Your task to perform on an android device: What's the news in South Korea? Image 0: 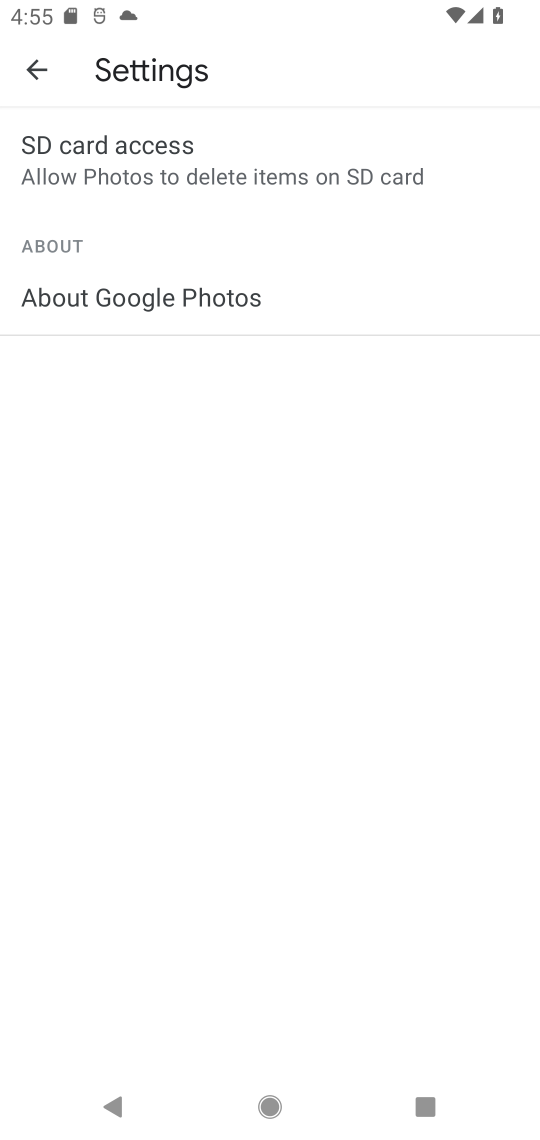
Step 0: press home button
Your task to perform on an android device: What's the news in South Korea? Image 1: 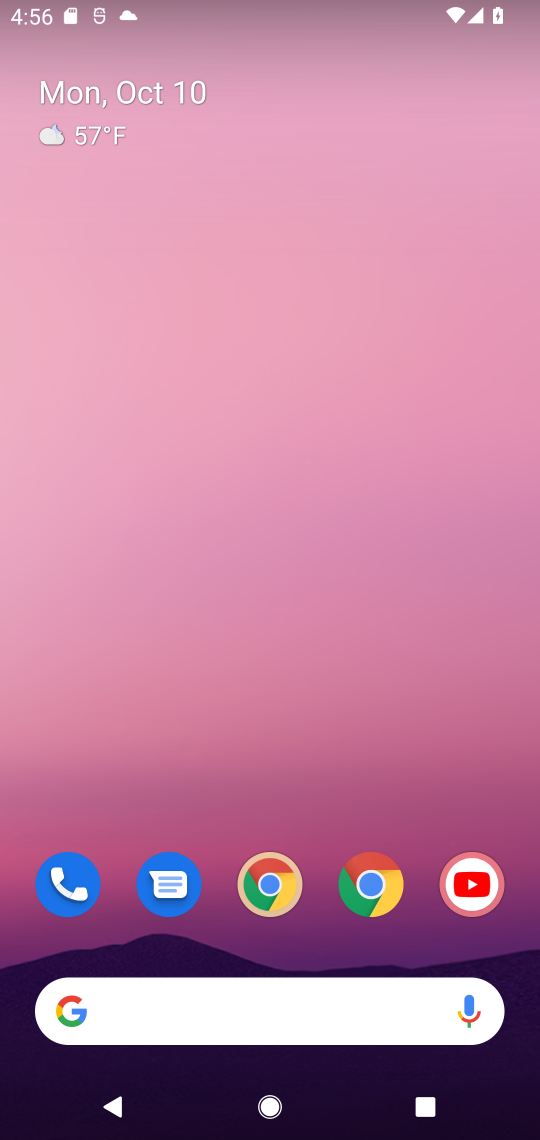
Step 1: click (381, 1016)
Your task to perform on an android device: What's the news in South Korea? Image 2: 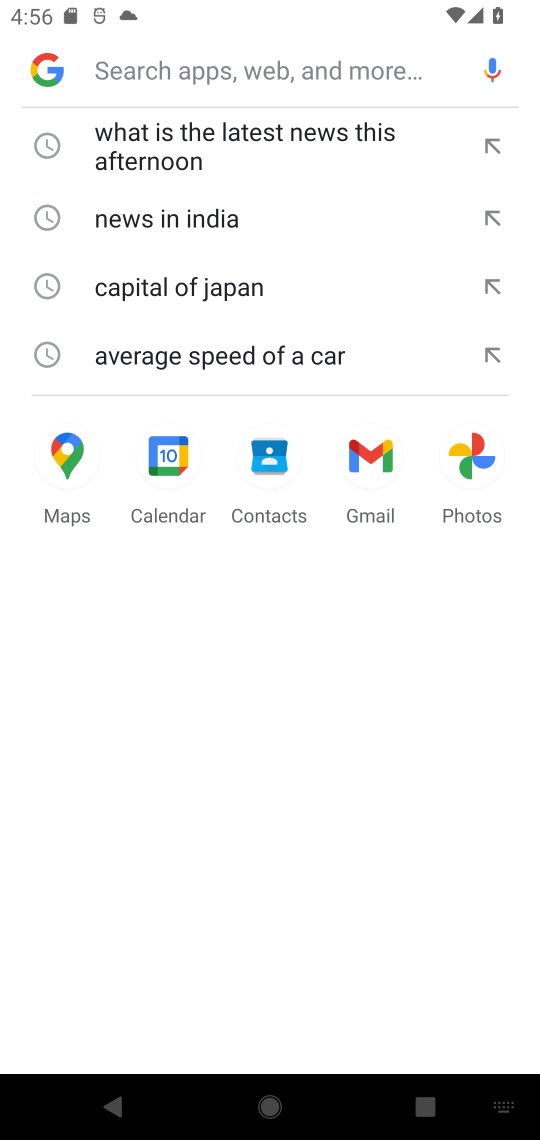
Step 2: type "news in south korea"
Your task to perform on an android device: What's the news in South Korea? Image 3: 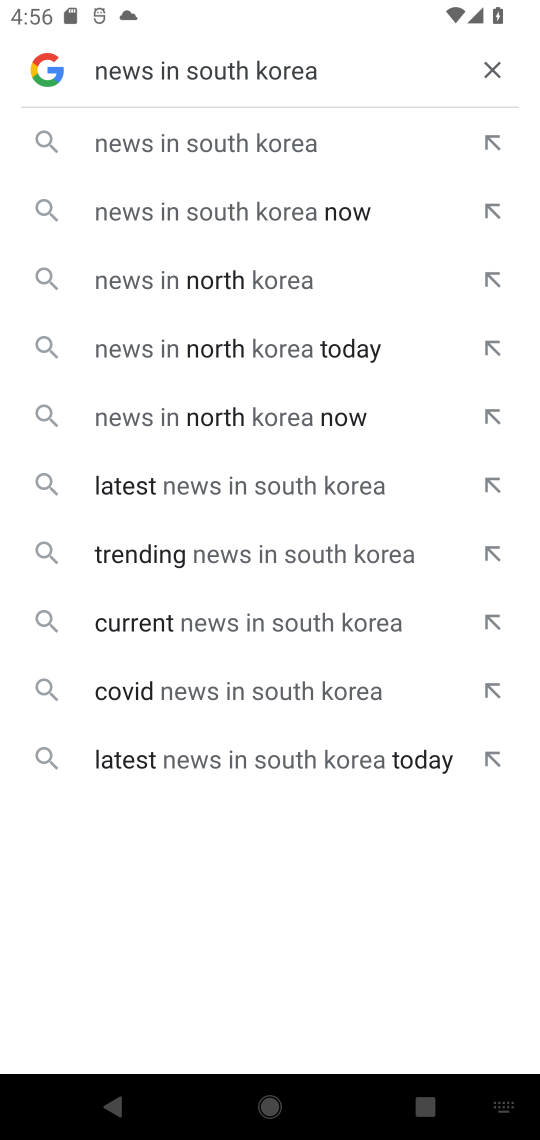
Step 3: click (247, 156)
Your task to perform on an android device: What's the news in South Korea? Image 4: 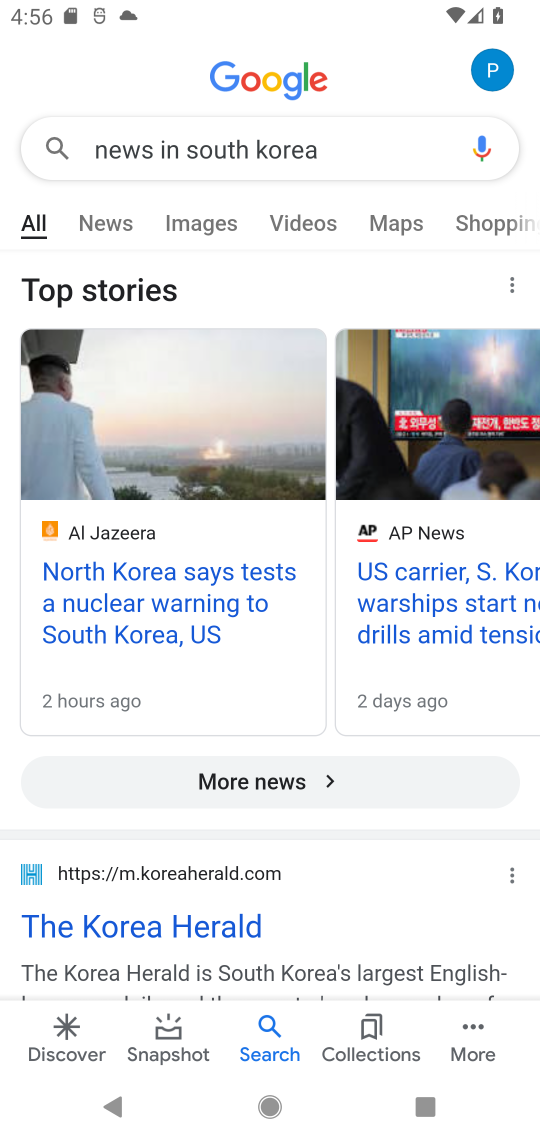
Step 4: click (147, 568)
Your task to perform on an android device: What's the news in South Korea? Image 5: 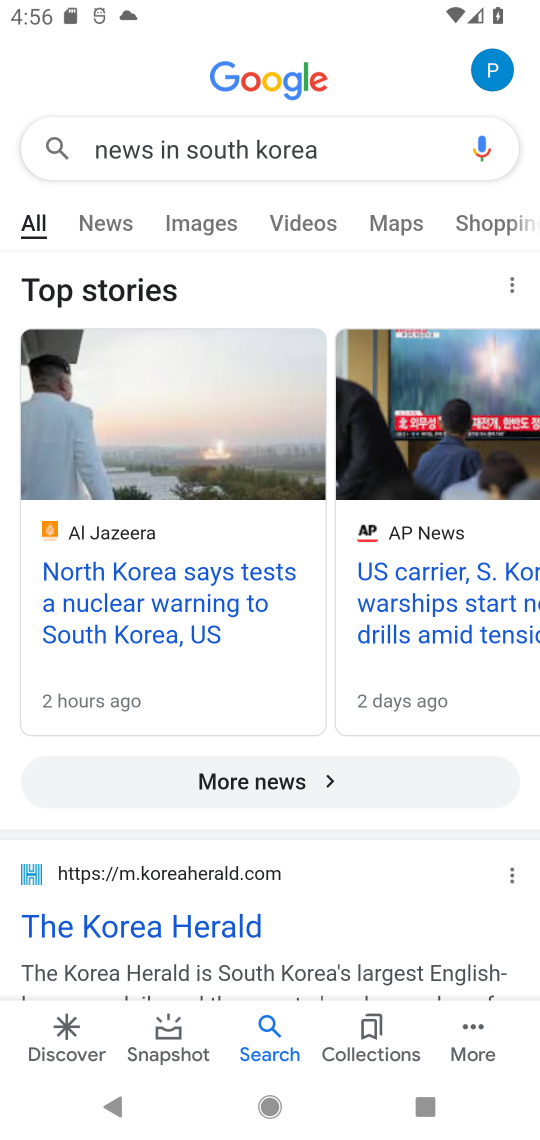
Step 5: click (167, 587)
Your task to perform on an android device: What's the news in South Korea? Image 6: 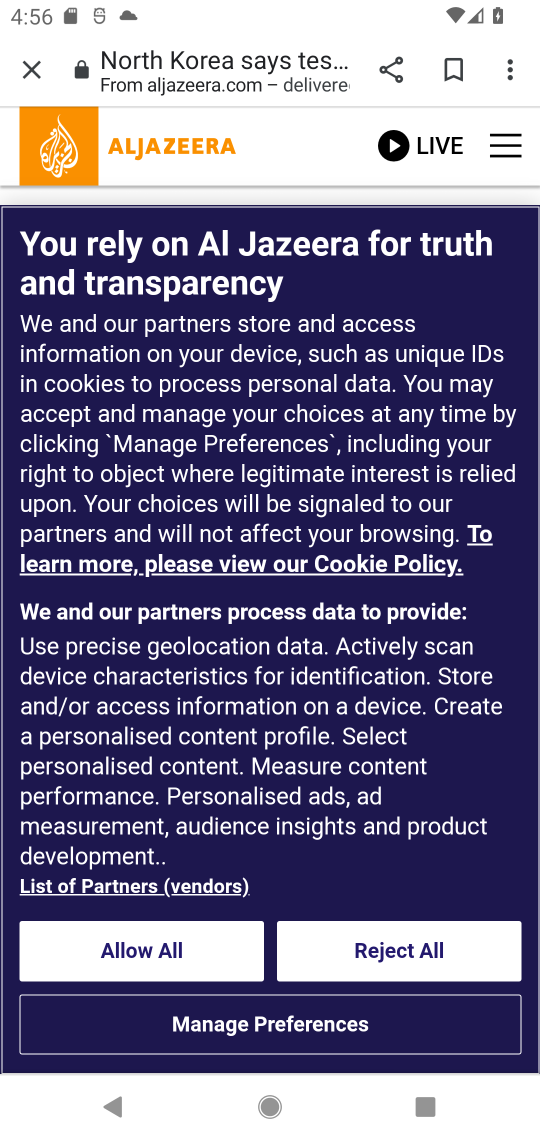
Step 6: task complete